Your task to perform on an android device: Turn off the flashlight Image 0: 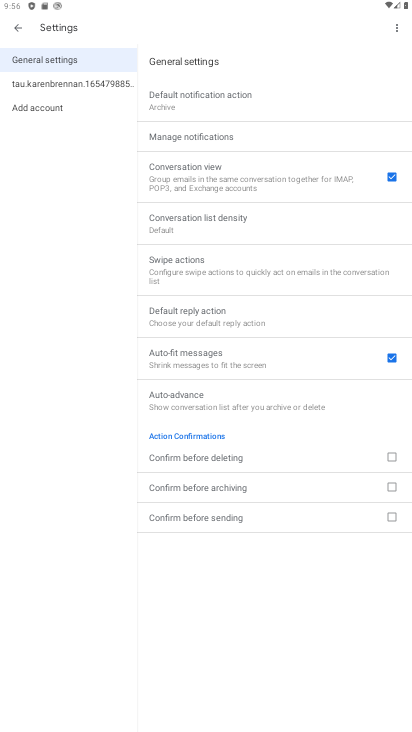
Step 0: press home button
Your task to perform on an android device: Turn off the flashlight Image 1: 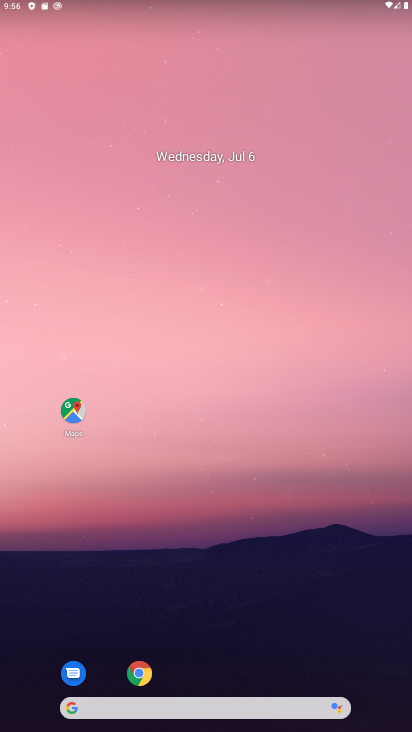
Step 1: task complete